Your task to perform on an android device: Open Google Chrome Image 0: 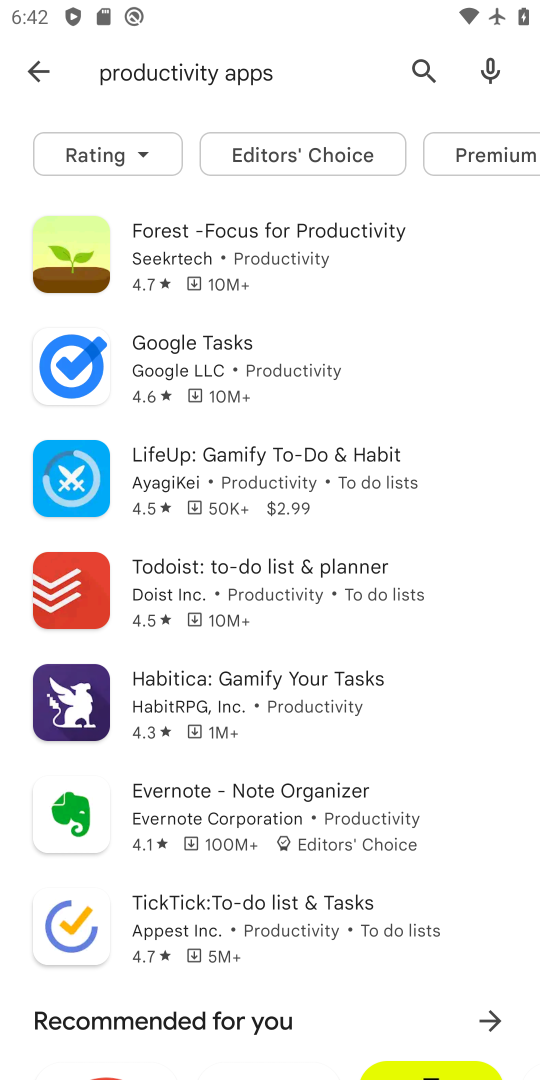
Step 0: press home button
Your task to perform on an android device: Open Google Chrome Image 1: 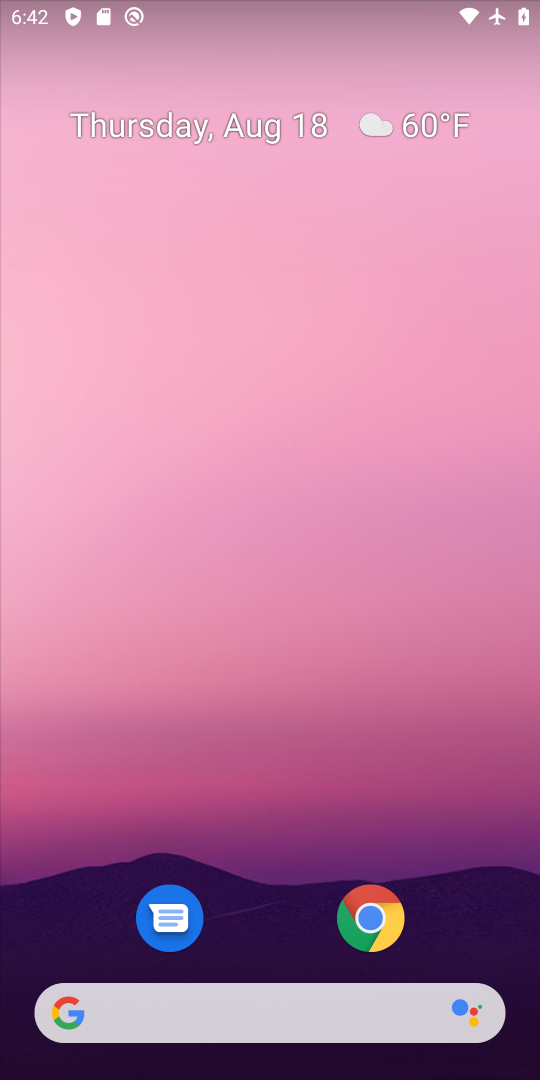
Step 1: click (380, 927)
Your task to perform on an android device: Open Google Chrome Image 2: 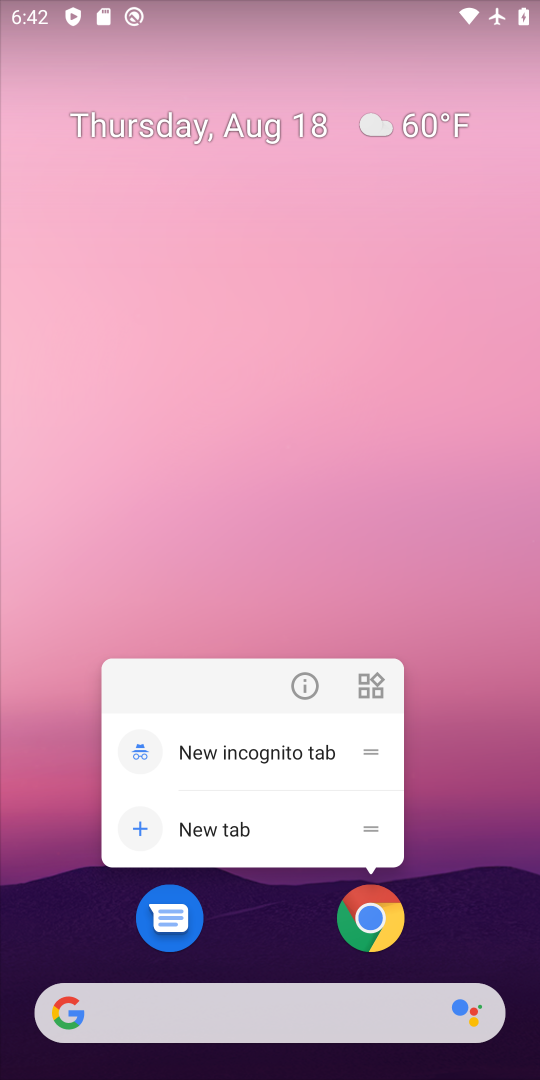
Step 2: click (380, 927)
Your task to perform on an android device: Open Google Chrome Image 3: 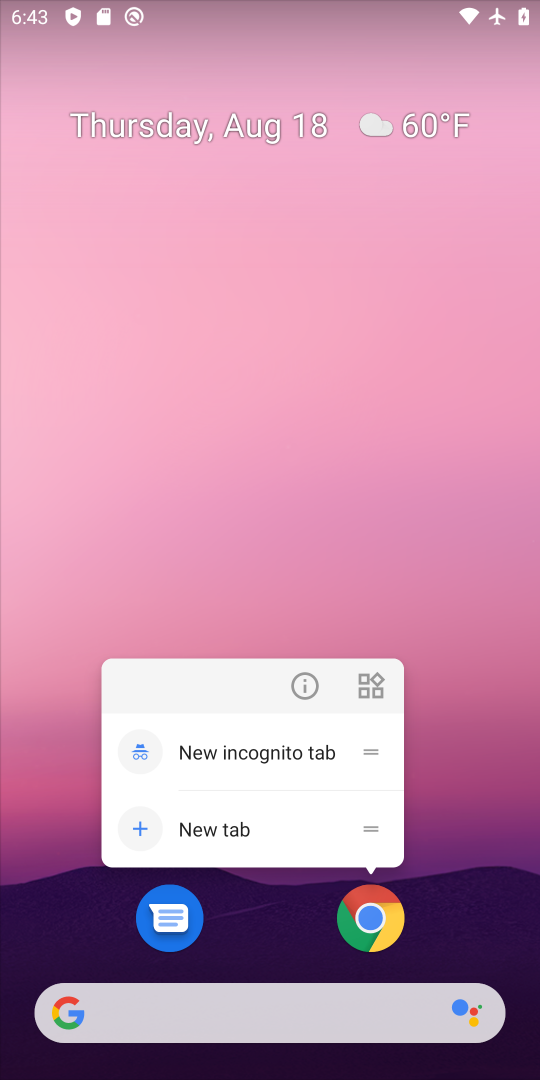
Step 3: click (265, 430)
Your task to perform on an android device: Open Google Chrome Image 4: 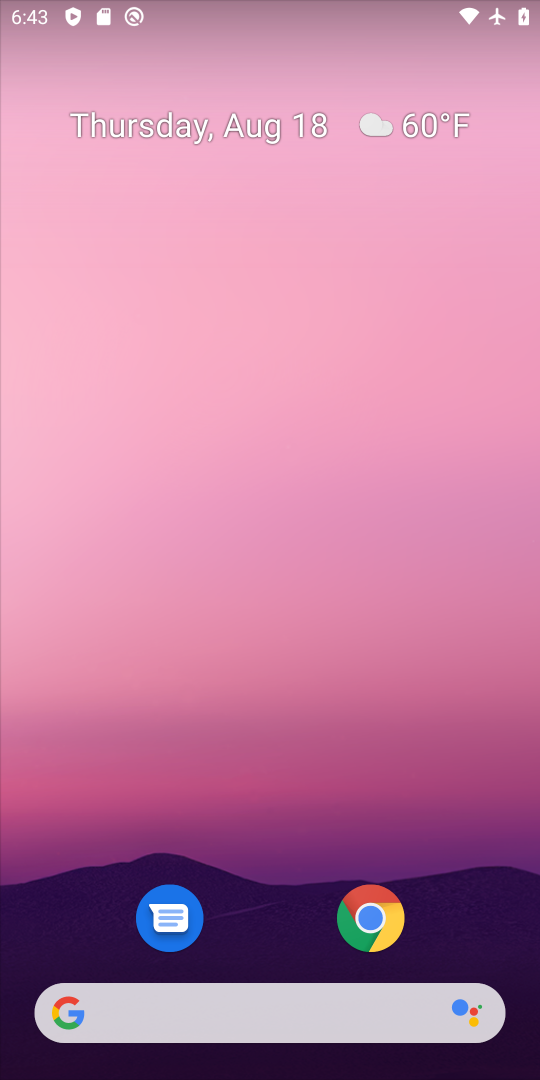
Step 4: click (375, 937)
Your task to perform on an android device: Open Google Chrome Image 5: 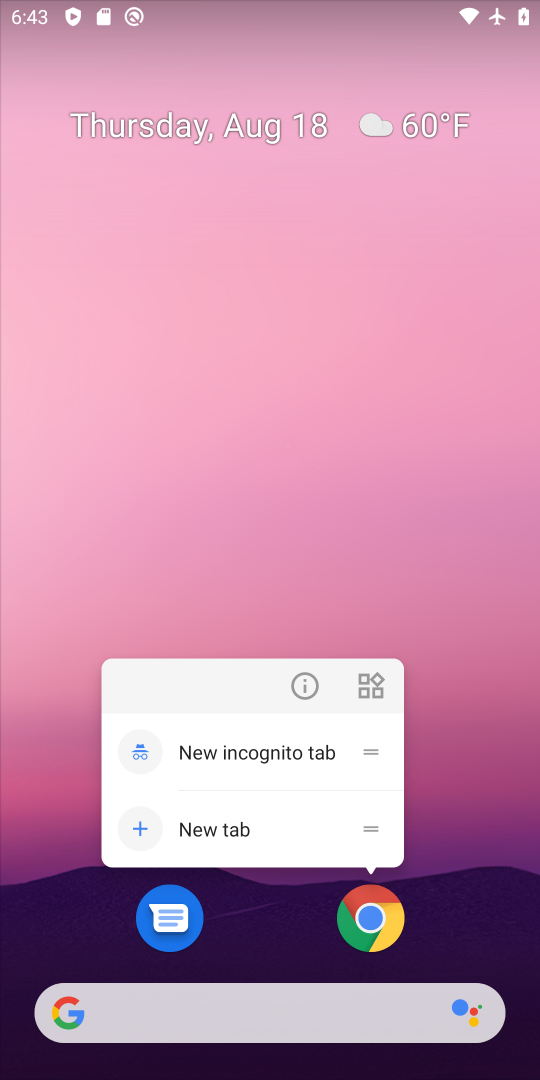
Step 5: click (375, 937)
Your task to perform on an android device: Open Google Chrome Image 6: 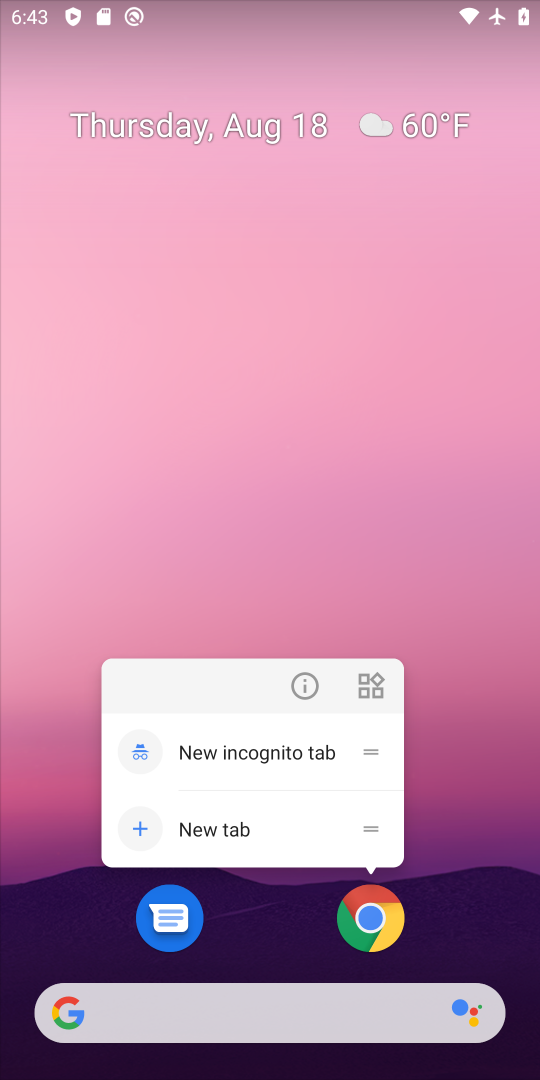
Step 6: click (375, 937)
Your task to perform on an android device: Open Google Chrome Image 7: 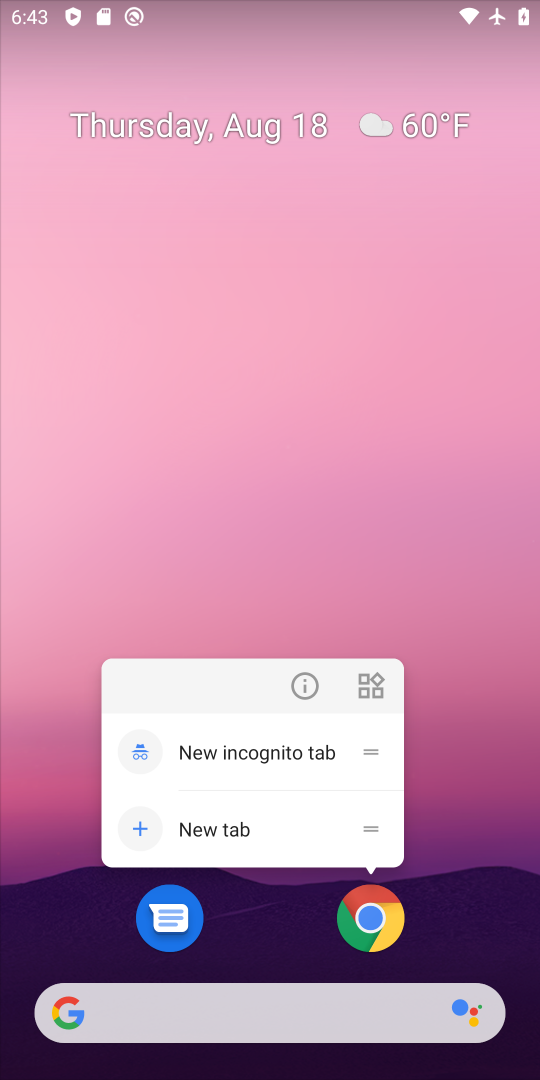
Step 7: click (387, 920)
Your task to perform on an android device: Open Google Chrome Image 8: 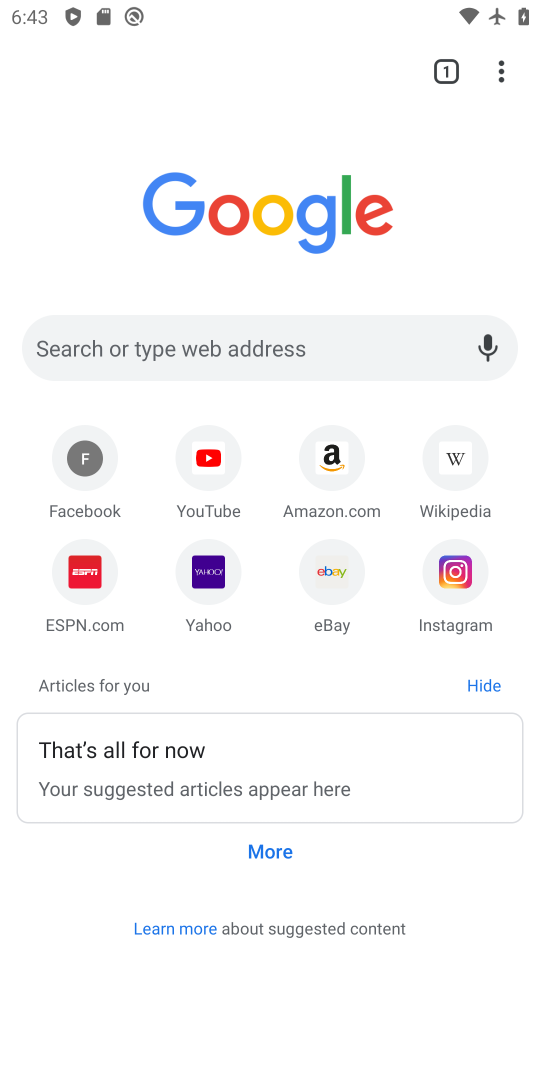
Step 8: task complete